Your task to perform on an android device: What's on Reddit Image 0: 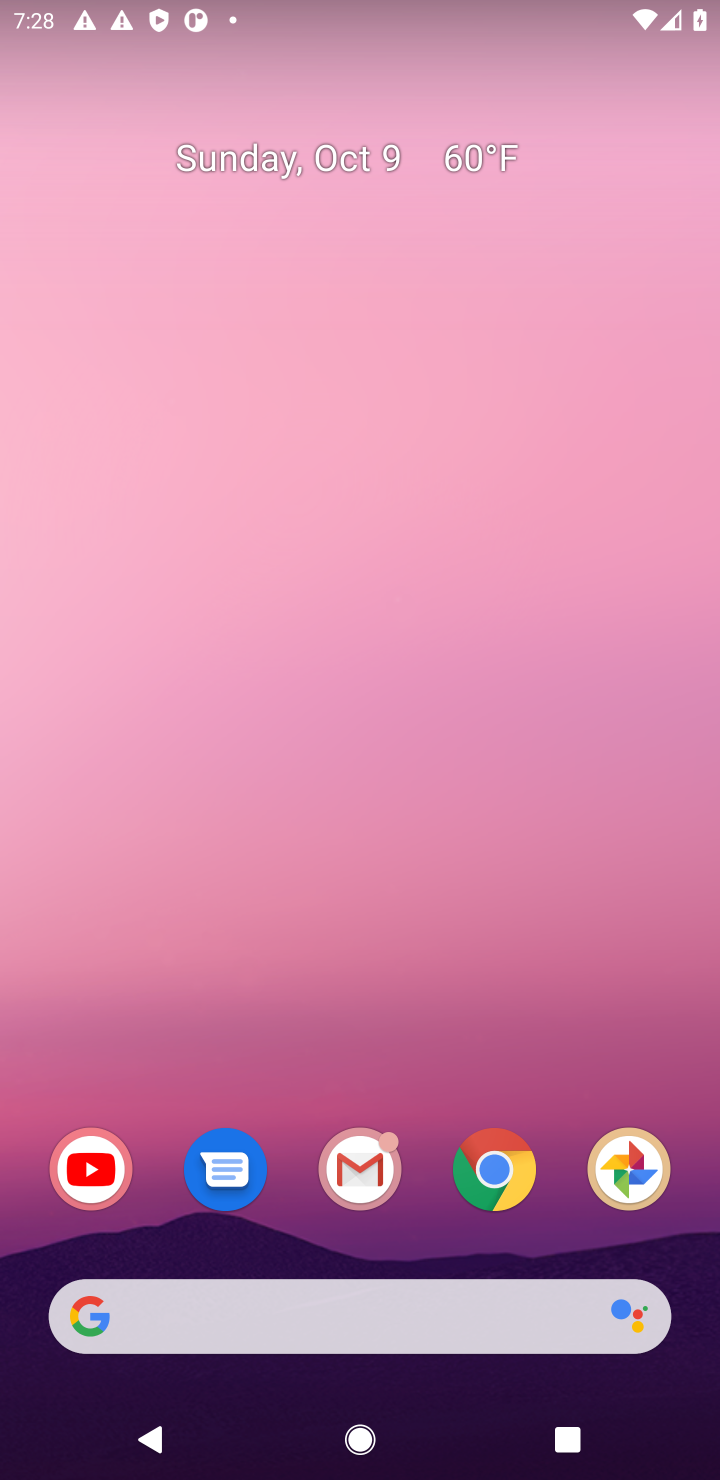
Step 0: drag from (433, 1023) to (500, 19)
Your task to perform on an android device: What's on Reddit Image 1: 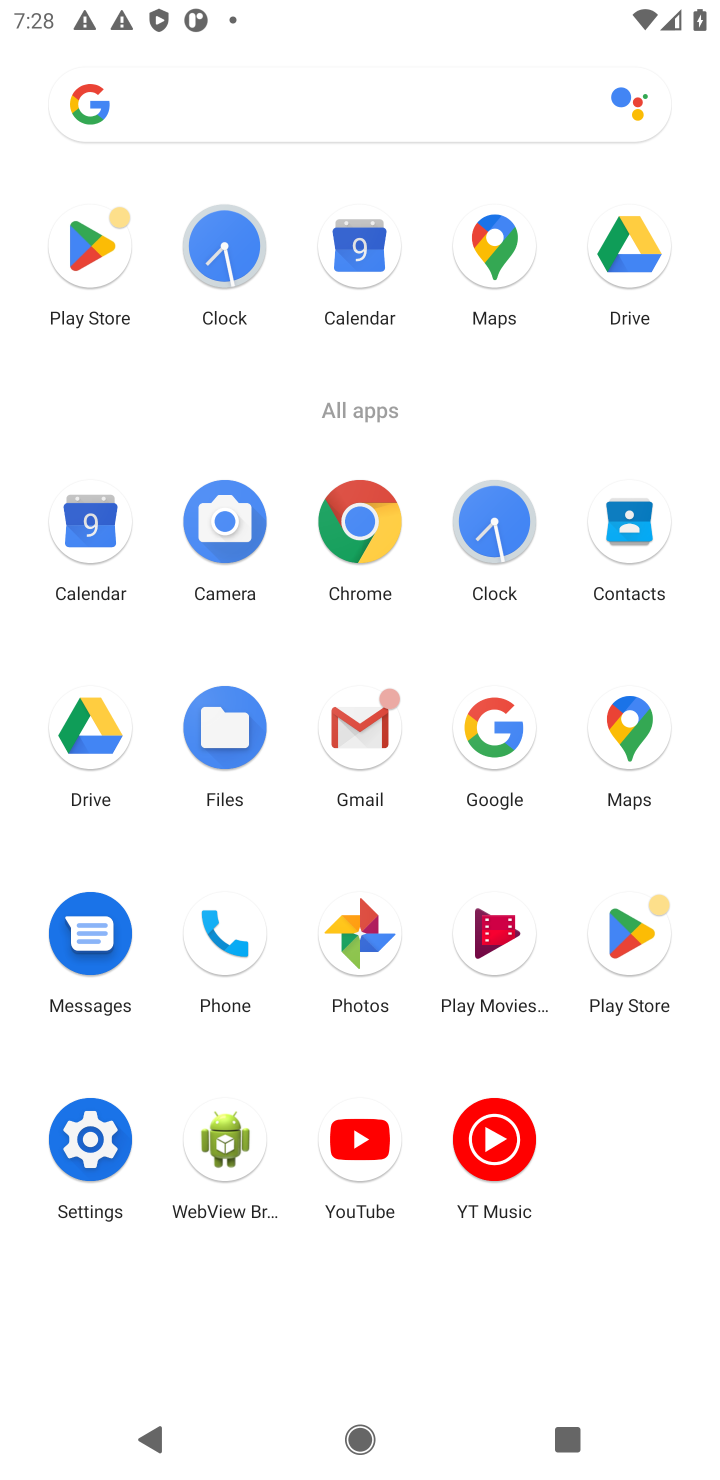
Step 1: click (346, 515)
Your task to perform on an android device: What's on Reddit Image 2: 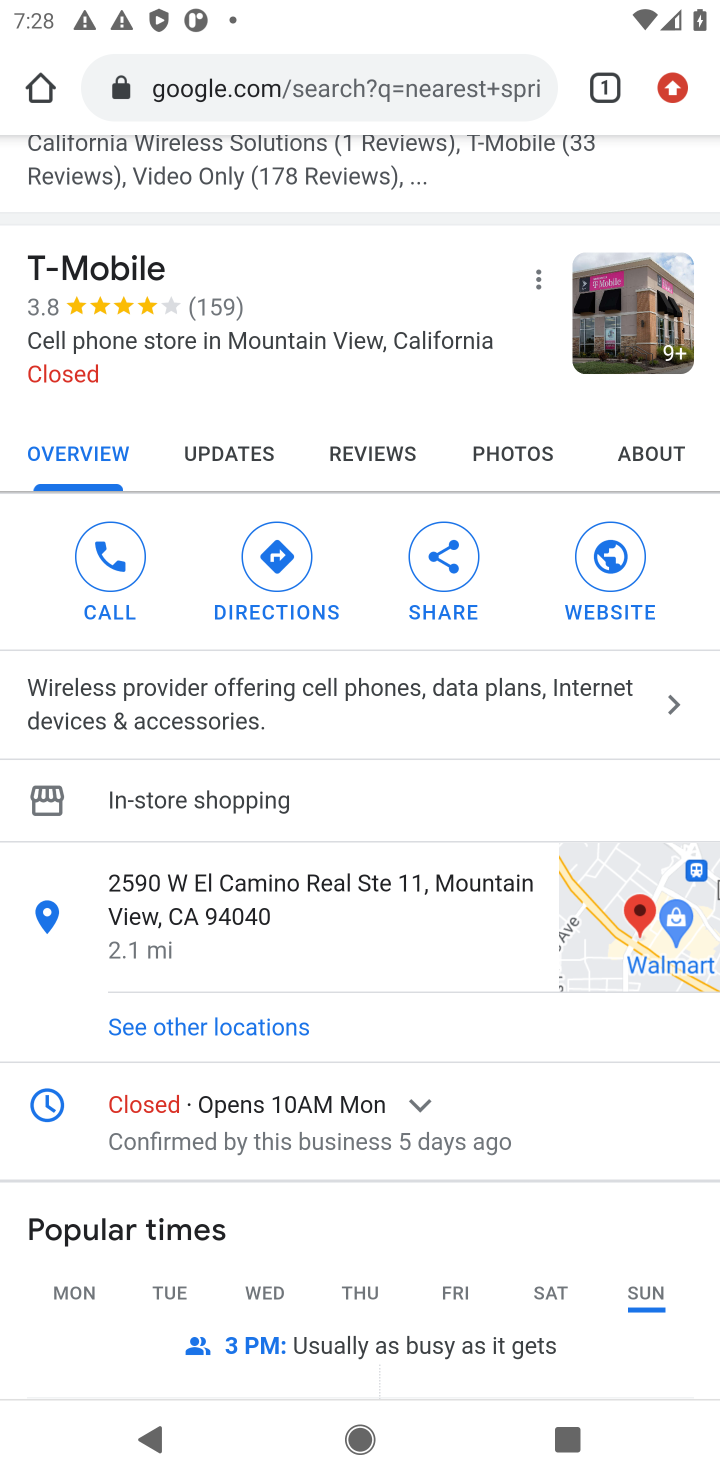
Step 2: click (309, 104)
Your task to perform on an android device: What's on Reddit Image 3: 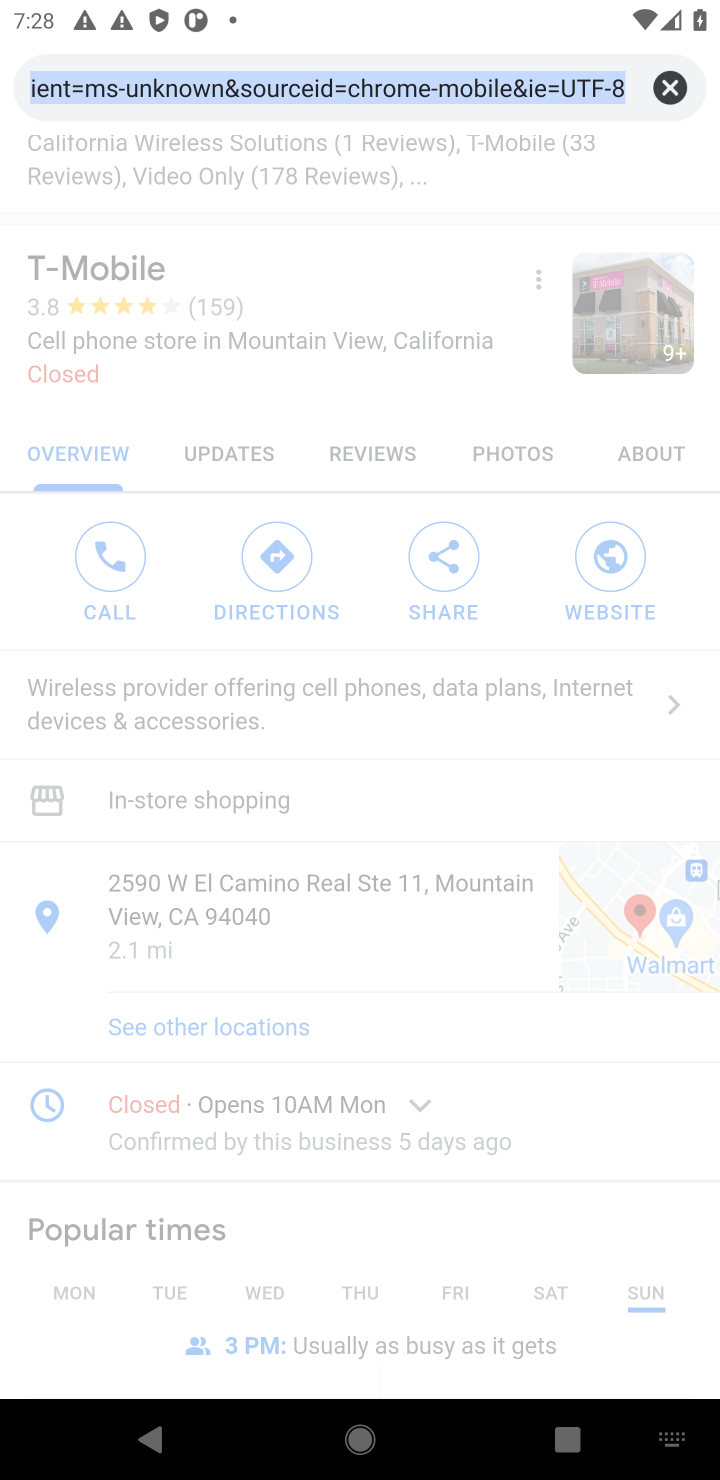
Step 3: type "reddit"
Your task to perform on an android device: What's on Reddit Image 4: 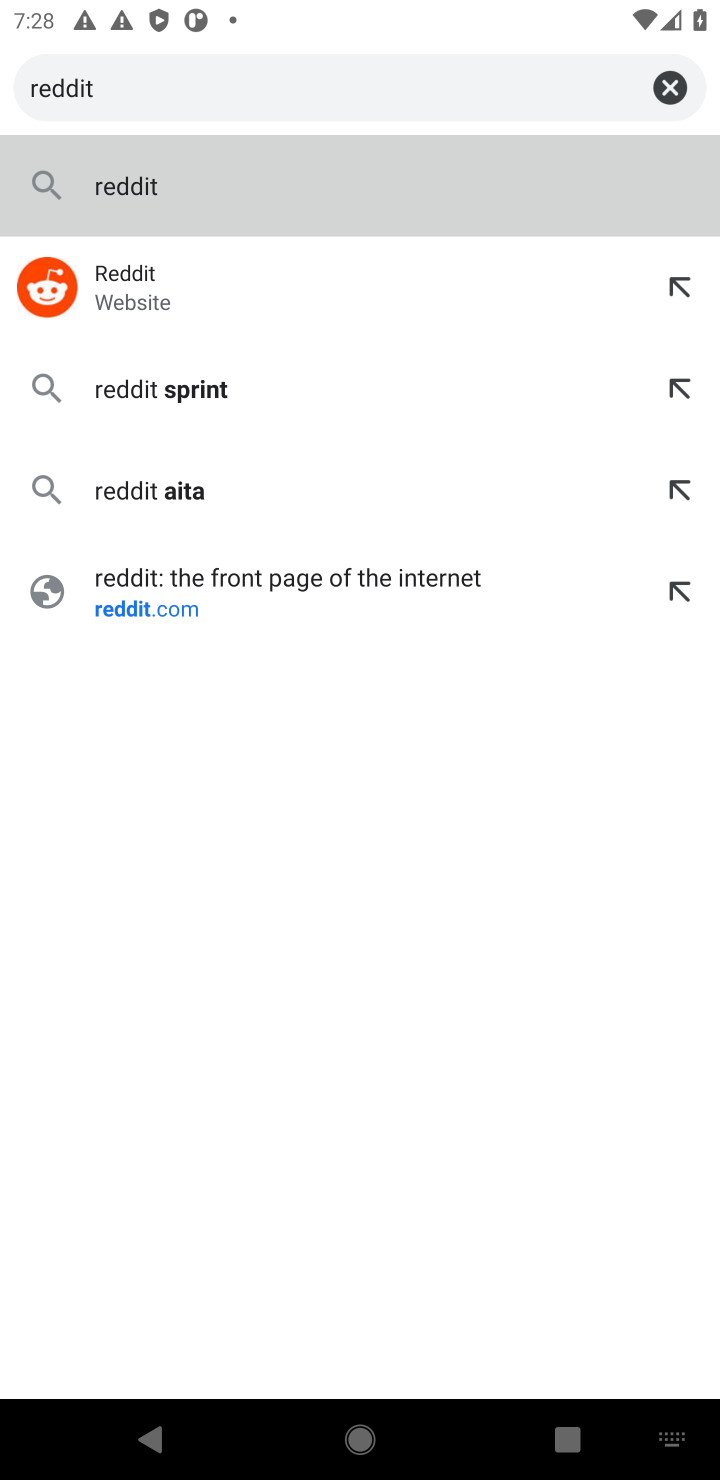
Step 4: click (94, 287)
Your task to perform on an android device: What's on Reddit Image 5: 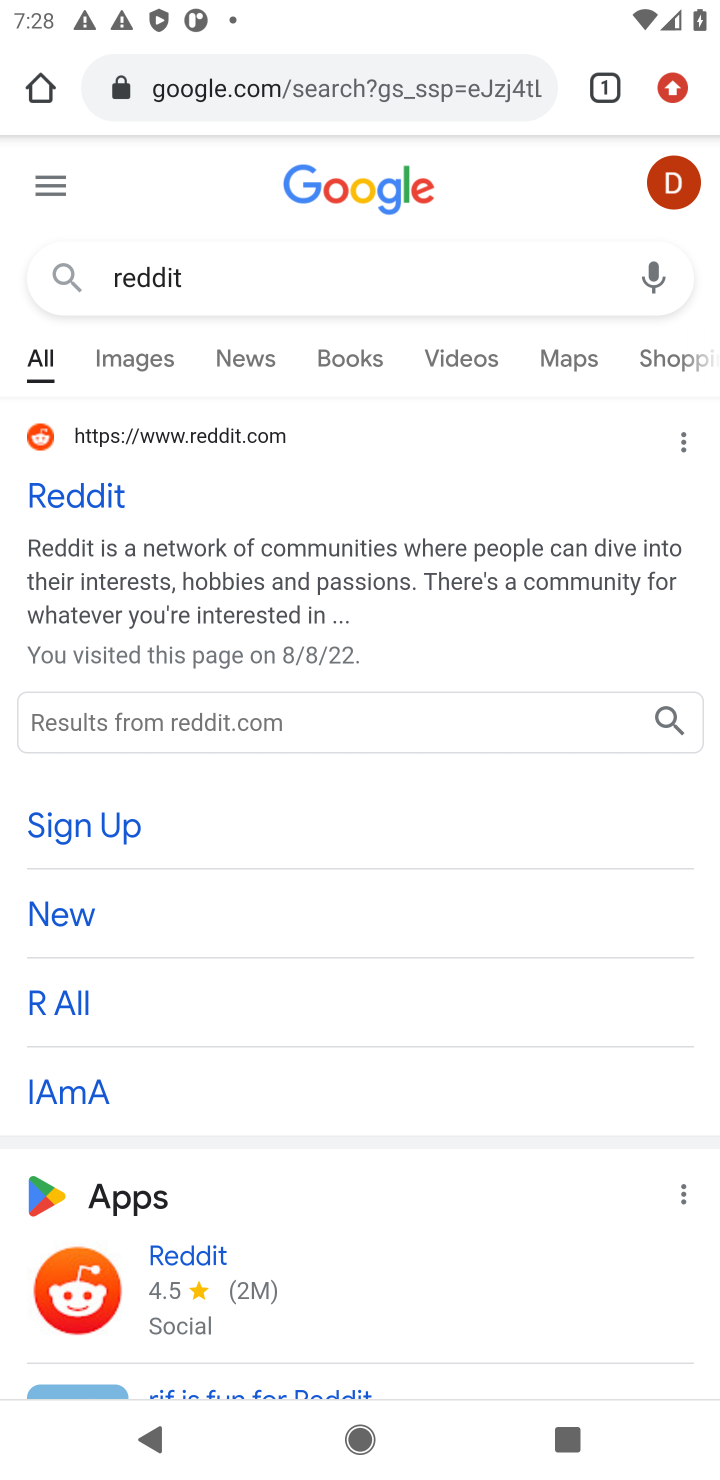
Step 5: click (78, 514)
Your task to perform on an android device: What's on Reddit Image 6: 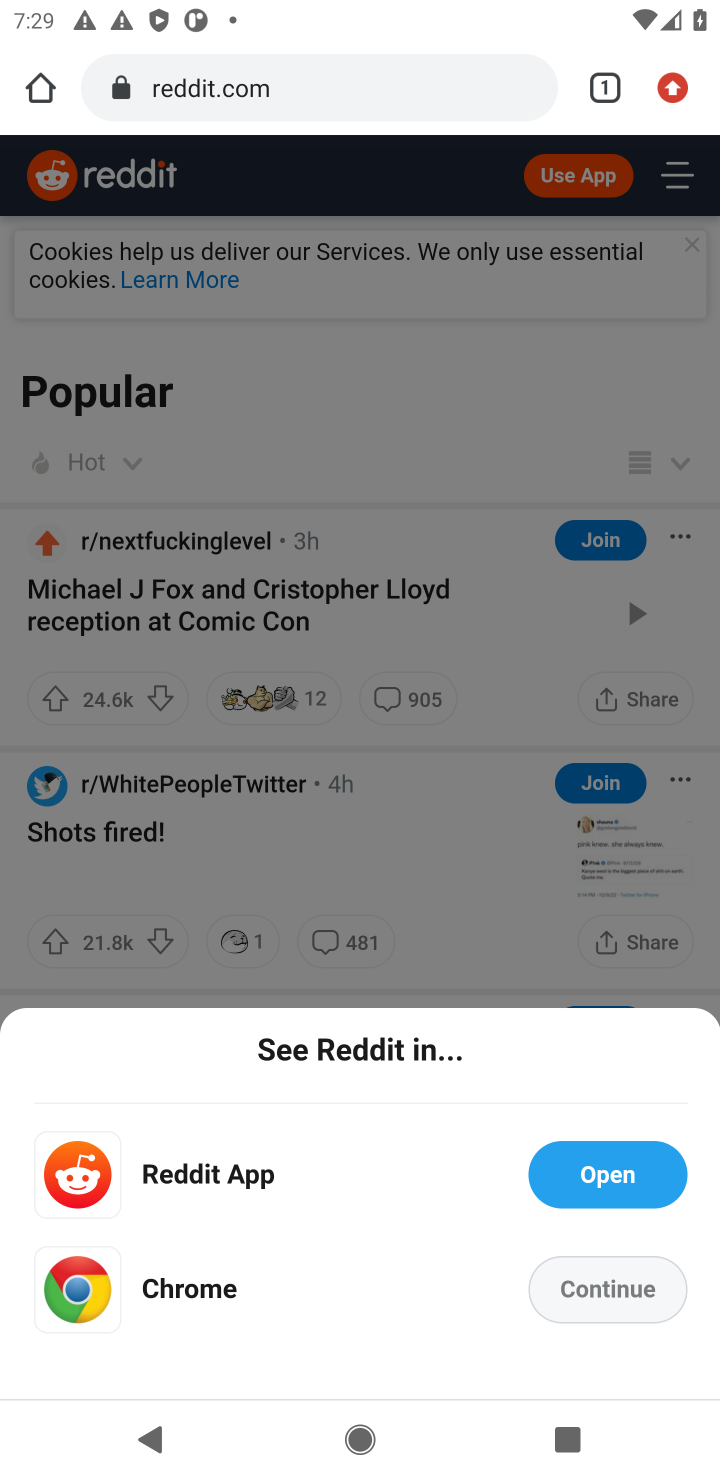
Step 6: click (642, 1291)
Your task to perform on an android device: What's on Reddit Image 7: 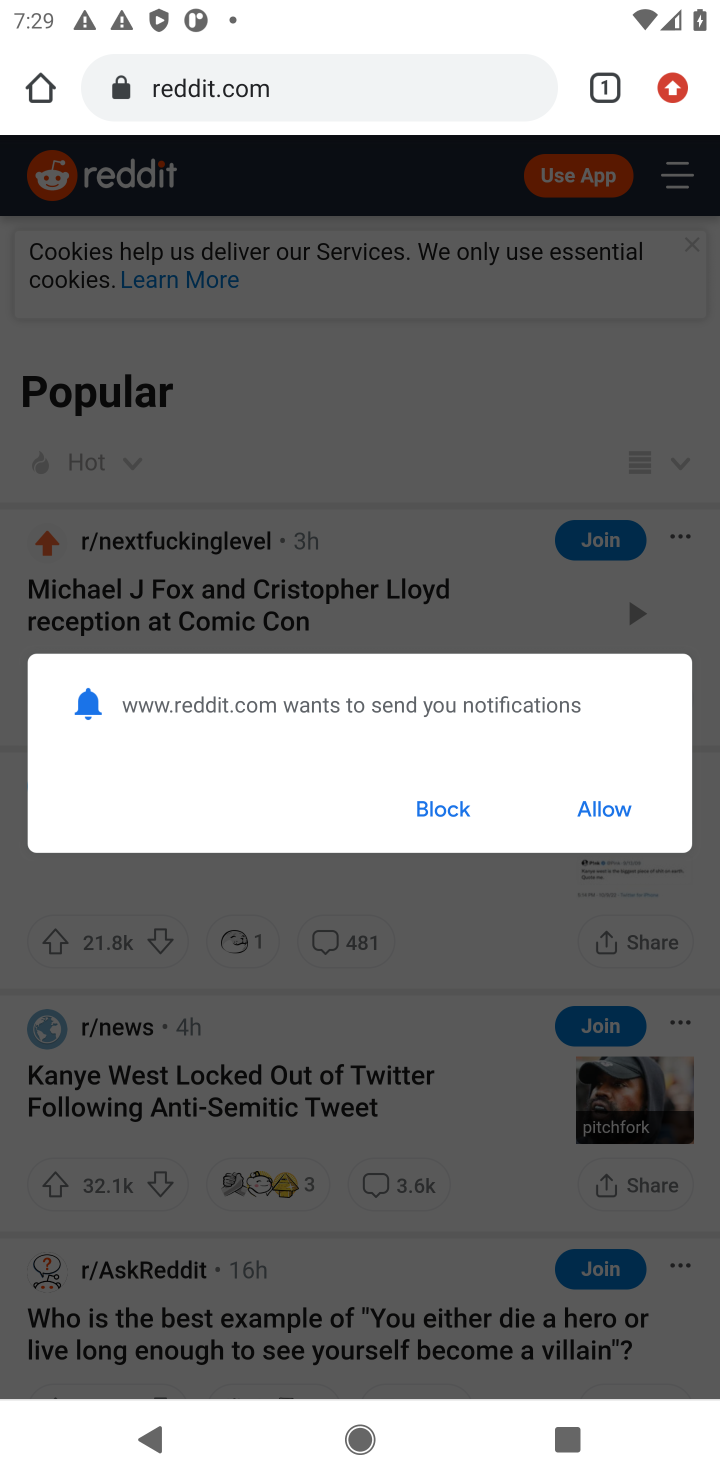
Step 7: click (446, 810)
Your task to perform on an android device: What's on Reddit Image 8: 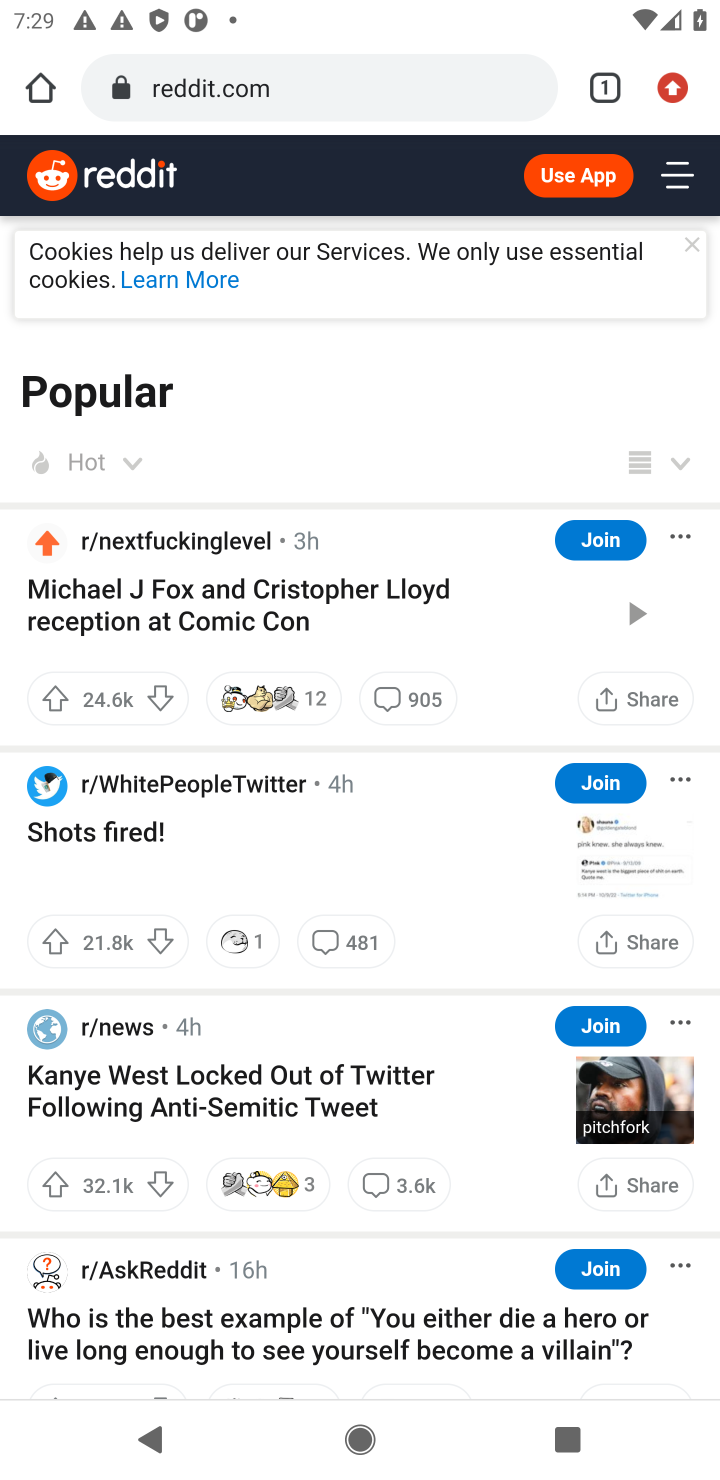
Step 8: task complete